Your task to perform on an android device: change alarm snooze length Image 0: 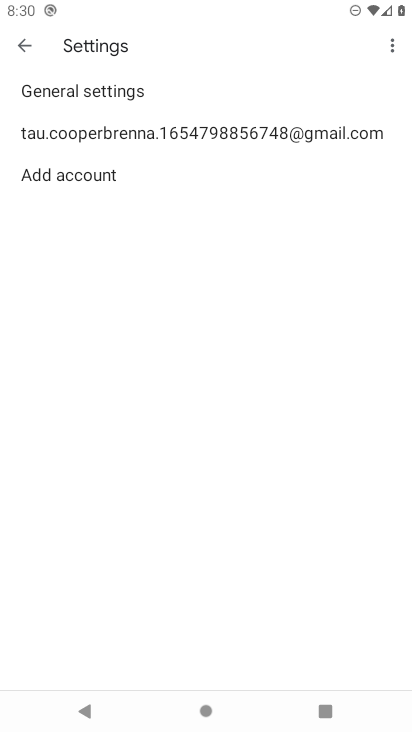
Step 0: press home button
Your task to perform on an android device: change alarm snooze length Image 1: 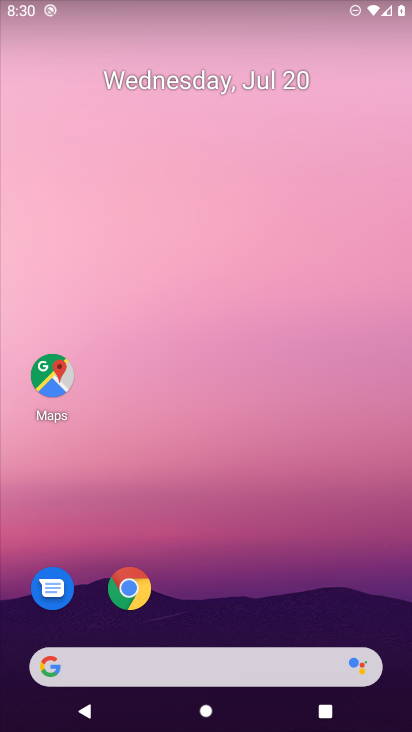
Step 1: drag from (18, 692) to (240, 227)
Your task to perform on an android device: change alarm snooze length Image 2: 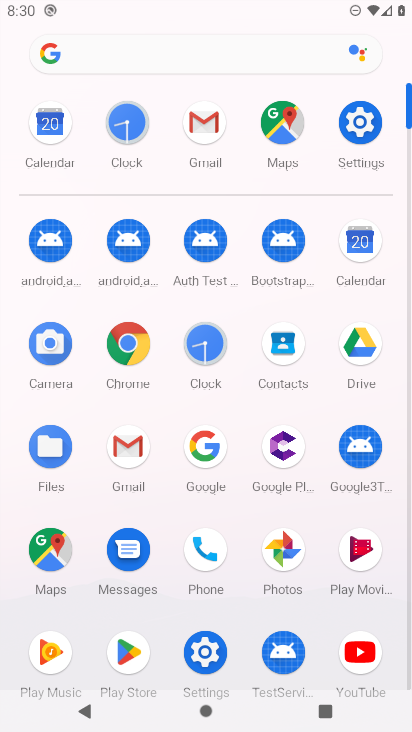
Step 2: click (212, 339)
Your task to perform on an android device: change alarm snooze length Image 3: 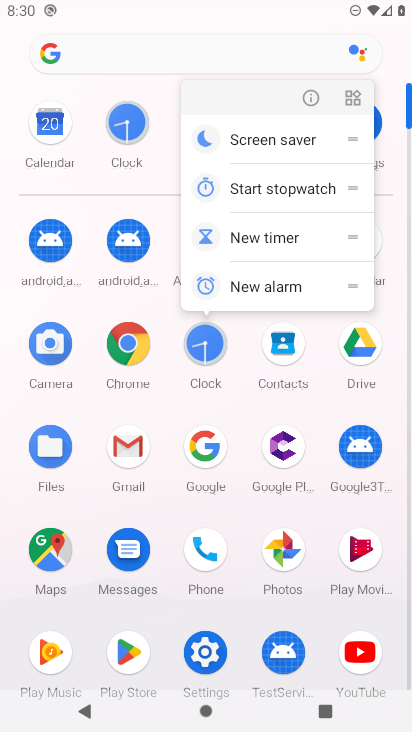
Step 3: click (199, 347)
Your task to perform on an android device: change alarm snooze length Image 4: 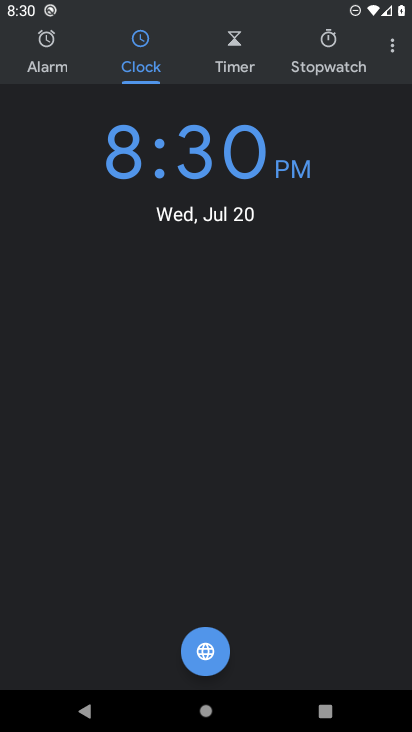
Step 4: click (27, 62)
Your task to perform on an android device: change alarm snooze length Image 5: 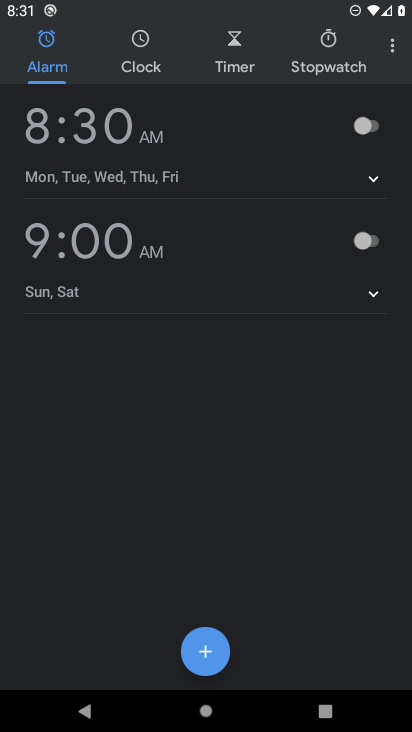
Step 5: click (393, 43)
Your task to perform on an android device: change alarm snooze length Image 6: 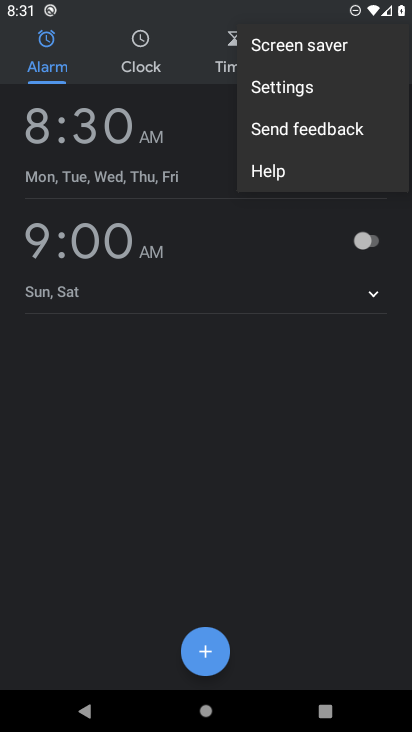
Step 6: click (295, 88)
Your task to perform on an android device: change alarm snooze length Image 7: 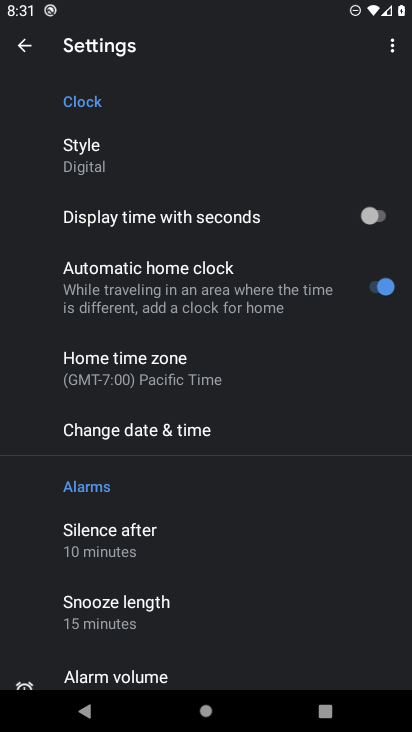
Step 7: click (119, 623)
Your task to perform on an android device: change alarm snooze length Image 8: 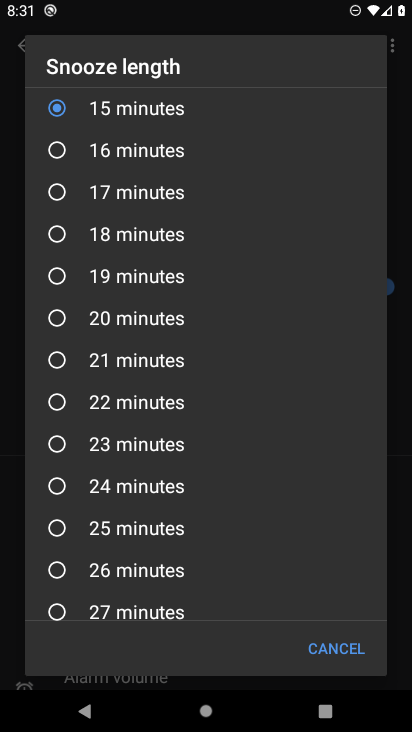
Step 8: drag from (137, 115) to (128, 436)
Your task to perform on an android device: change alarm snooze length Image 9: 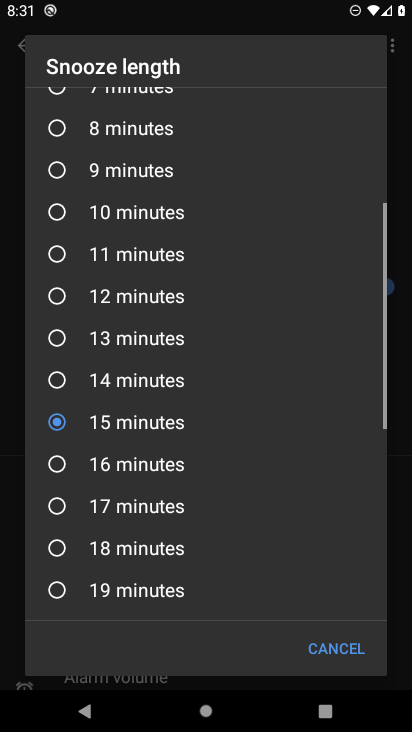
Step 9: drag from (239, 202) to (228, 319)
Your task to perform on an android device: change alarm snooze length Image 10: 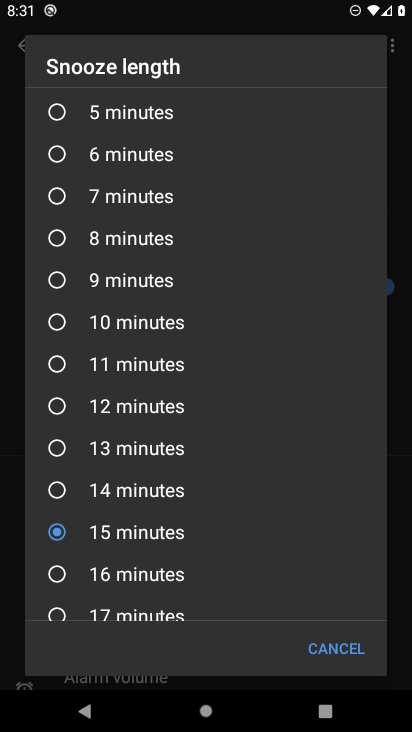
Step 10: click (54, 110)
Your task to perform on an android device: change alarm snooze length Image 11: 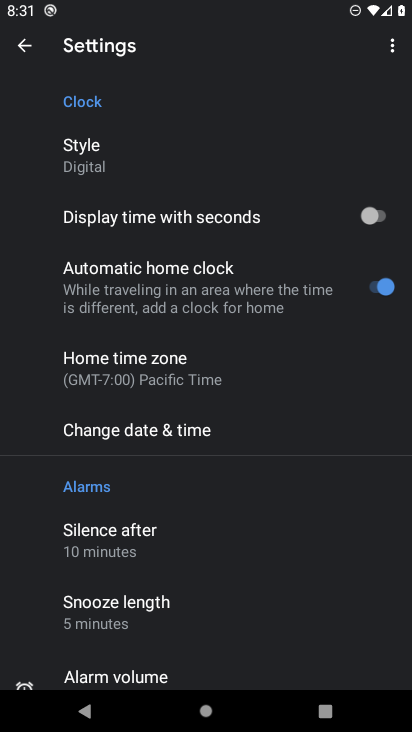
Step 11: task complete